Your task to perform on an android device: turn off picture-in-picture Image 0: 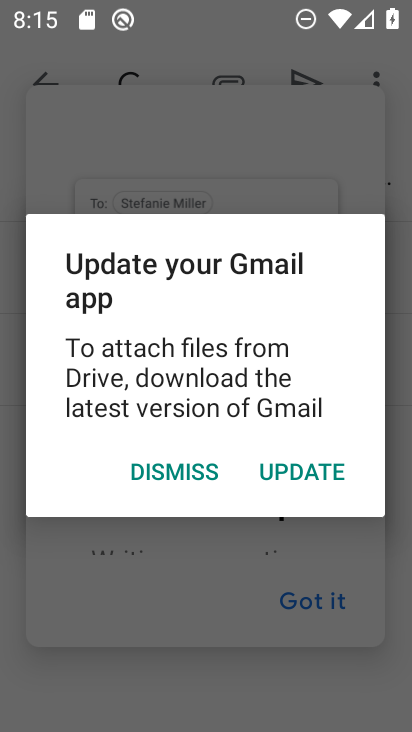
Step 0: press back button
Your task to perform on an android device: turn off picture-in-picture Image 1: 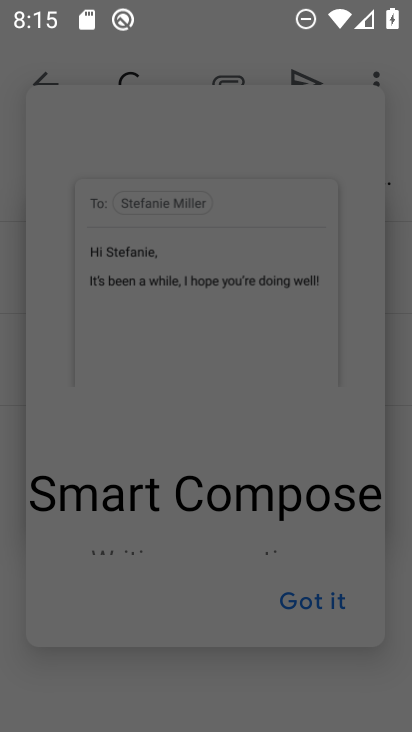
Step 1: press back button
Your task to perform on an android device: turn off picture-in-picture Image 2: 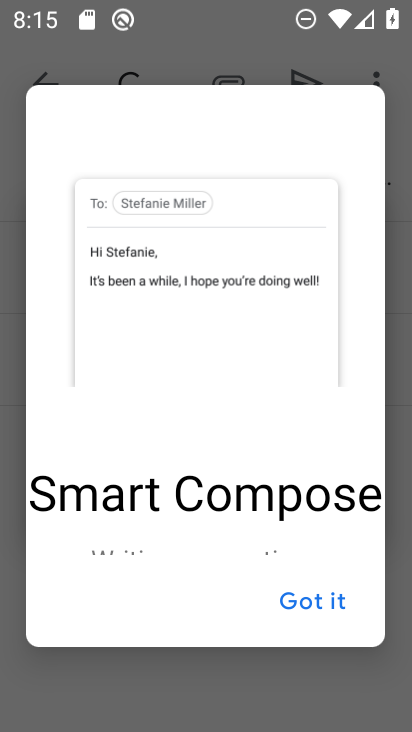
Step 2: press home button
Your task to perform on an android device: turn off picture-in-picture Image 3: 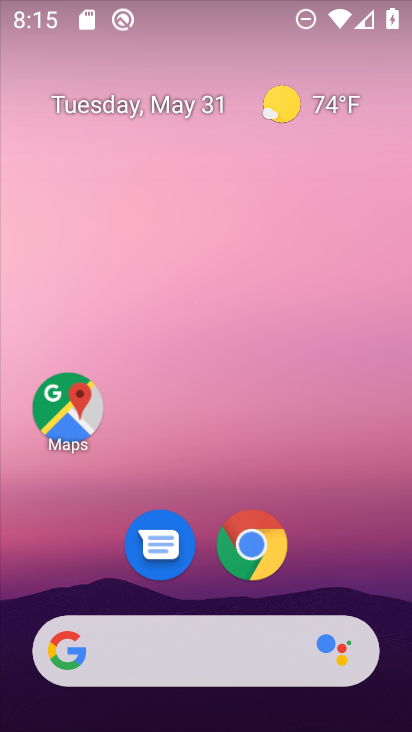
Step 3: drag from (350, 592) to (248, 0)
Your task to perform on an android device: turn off picture-in-picture Image 4: 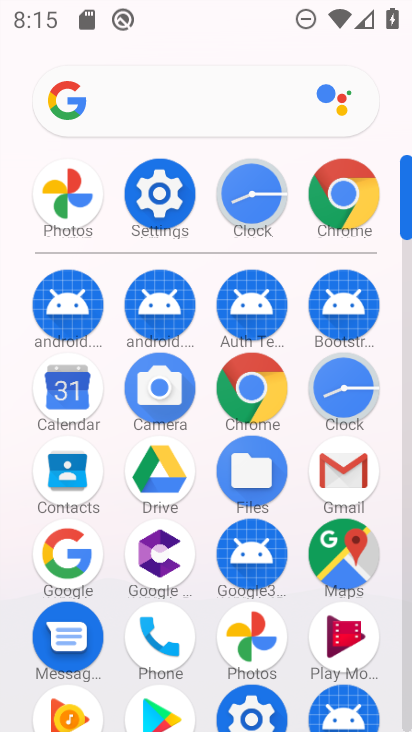
Step 4: drag from (13, 622) to (19, 266)
Your task to perform on an android device: turn off picture-in-picture Image 5: 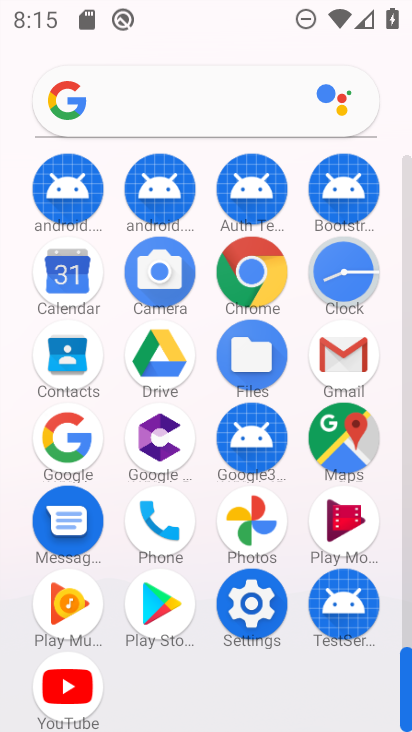
Step 5: click (253, 606)
Your task to perform on an android device: turn off picture-in-picture Image 6: 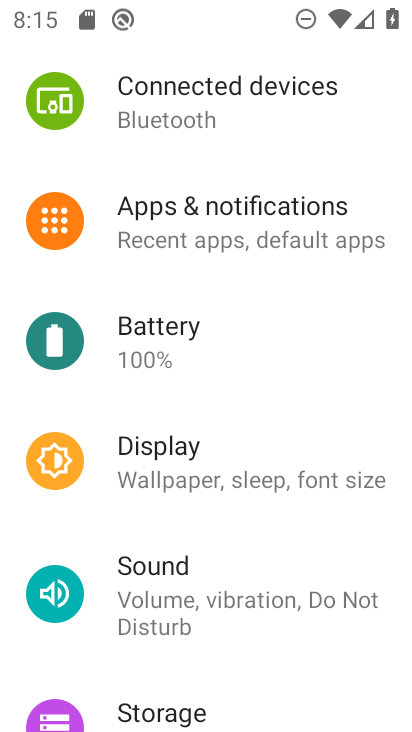
Step 6: drag from (287, 597) to (285, 173)
Your task to perform on an android device: turn off picture-in-picture Image 7: 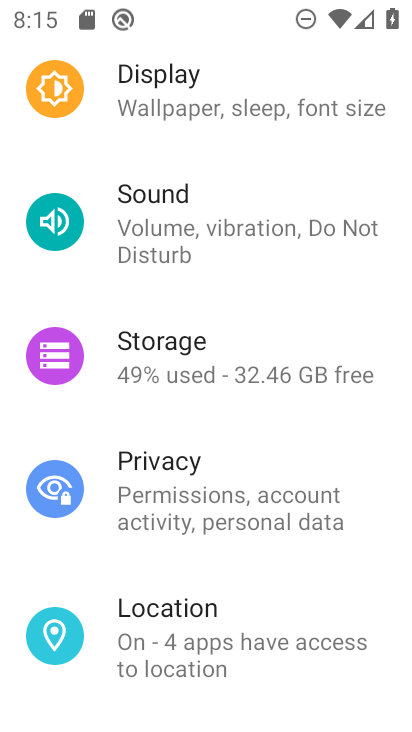
Step 7: drag from (245, 584) to (216, 90)
Your task to perform on an android device: turn off picture-in-picture Image 8: 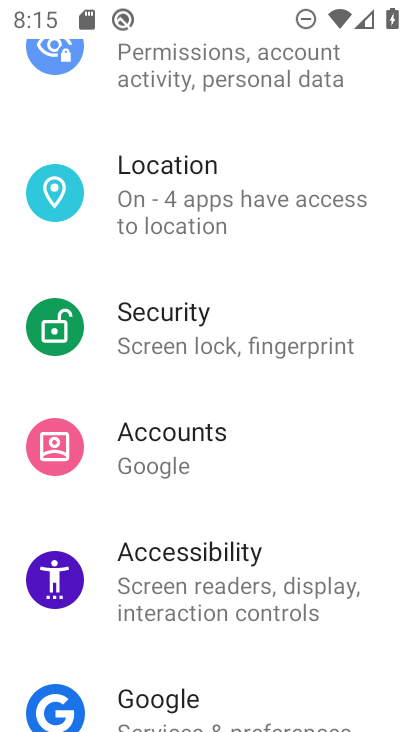
Step 8: drag from (278, 557) to (260, 163)
Your task to perform on an android device: turn off picture-in-picture Image 9: 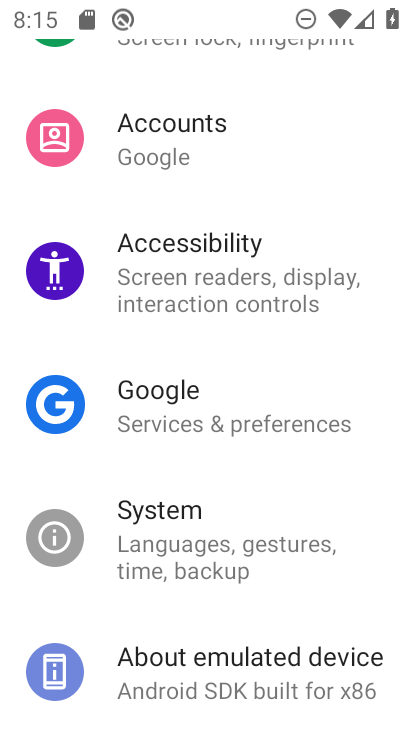
Step 9: drag from (288, 621) to (266, 224)
Your task to perform on an android device: turn off picture-in-picture Image 10: 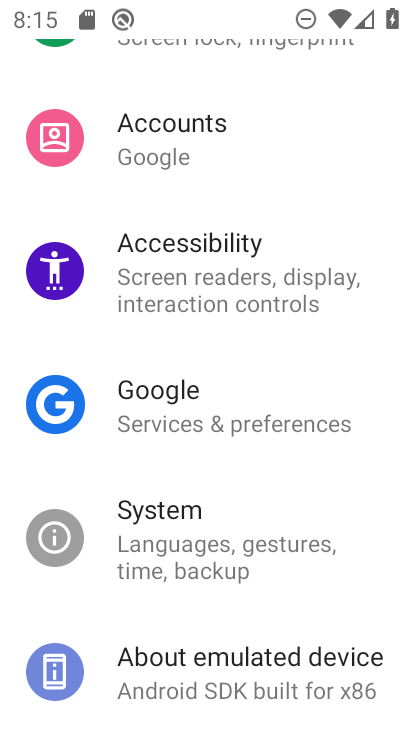
Step 10: drag from (235, 188) to (248, 642)
Your task to perform on an android device: turn off picture-in-picture Image 11: 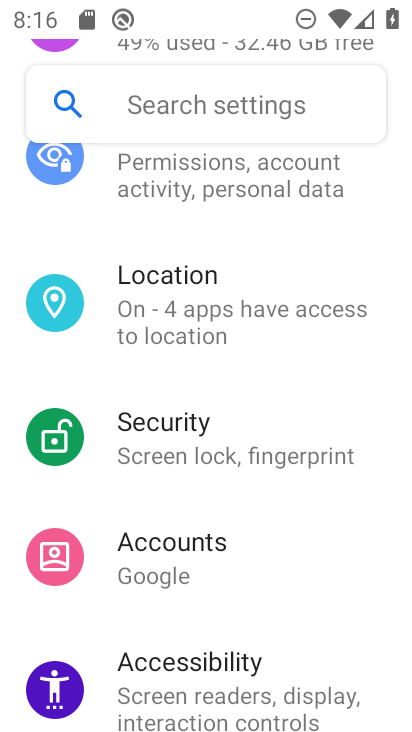
Step 11: drag from (239, 243) to (283, 661)
Your task to perform on an android device: turn off picture-in-picture Image 12: 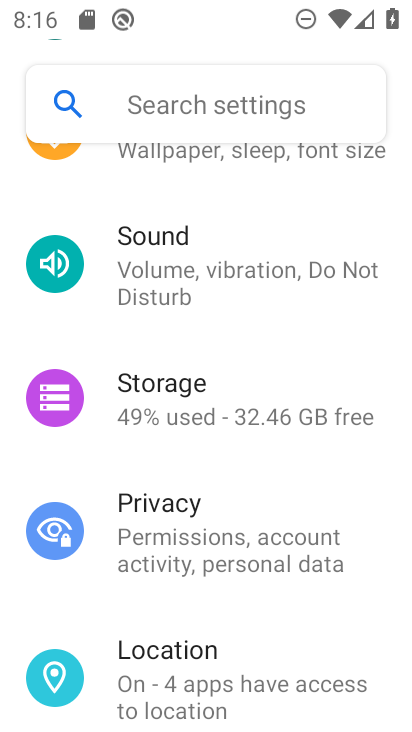
Step 12: drag from (273, 280) to (267, 692)
Your task to perform on an android device: turn off picture-in-picture Image 13: 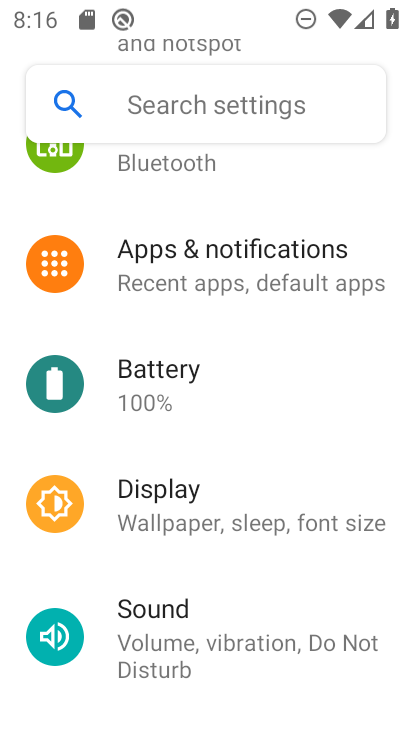
Step 13: click (207, 263)
Your task to perform on an android device: turn off picture-in-picture Image 14: 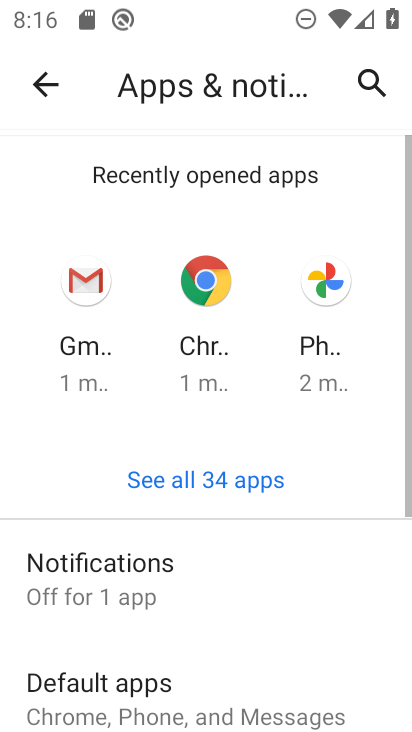
Step 14: drag from (246, 614) to (231, 182)
Your task to perform on an android device: turn off picture-in-picture Image 15: 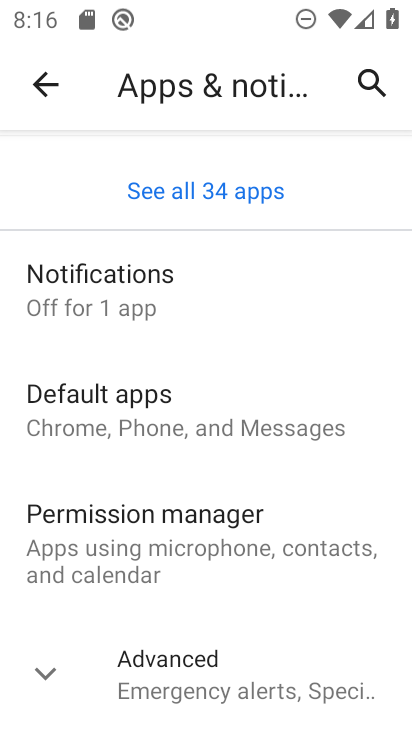
Step 15: drag from (259, 637) to (254, 306)
Your task to perform on an android device: turn off picture-in-picture Image 16: 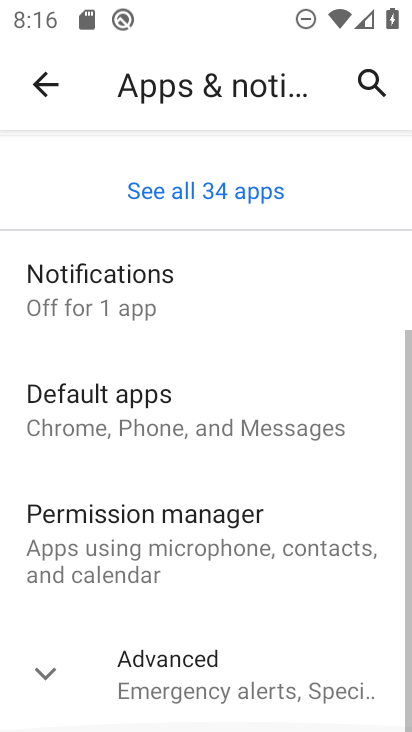
Step 16: click (46, 678)
Your task to perform on an android device: turn off picture-in-picture Image 17: 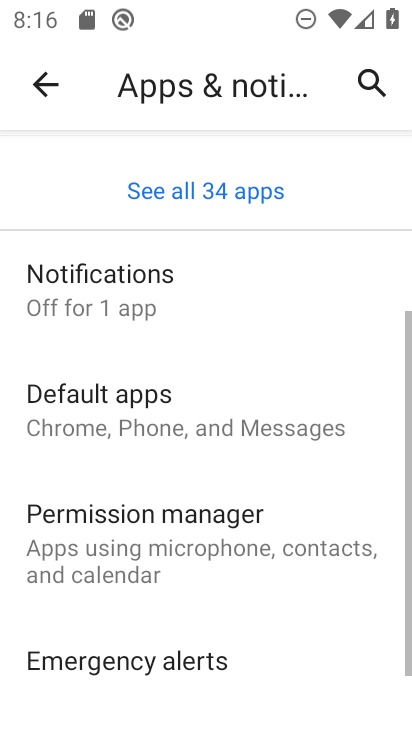
Step 17: drag from (272, 609) to (287, 140)
Your task to perform on an android device: turn off picture-in-picture Image 18: 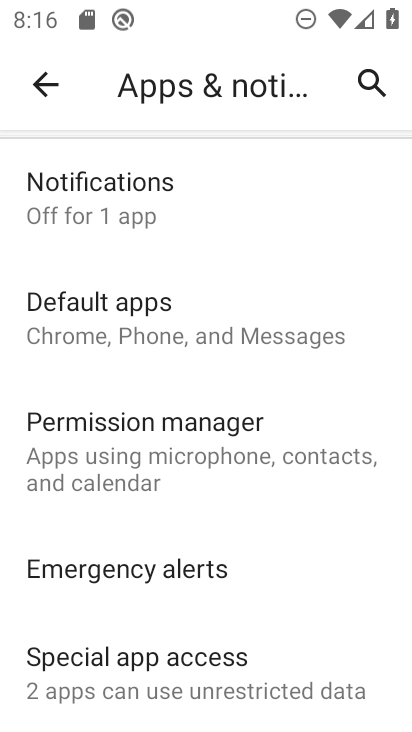
Step 18: drag from (267, 577) to (267, 349)
Your task to perform on an android device: turn off picture-in-picture Image 19: 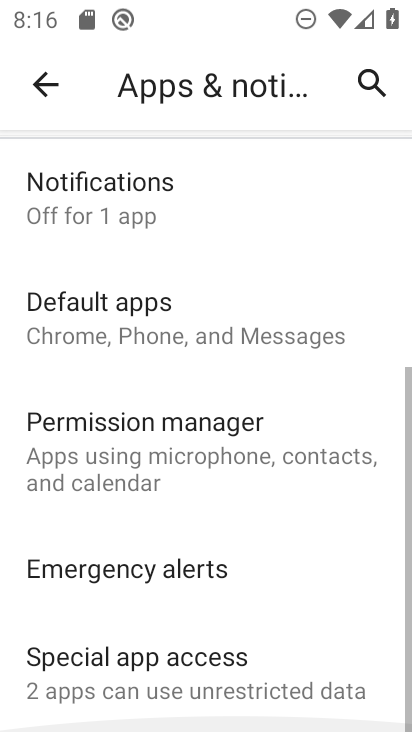
Step 19: click (119, 661)
Your task to perform on an android device: turn off picture-in-picture Image 20: 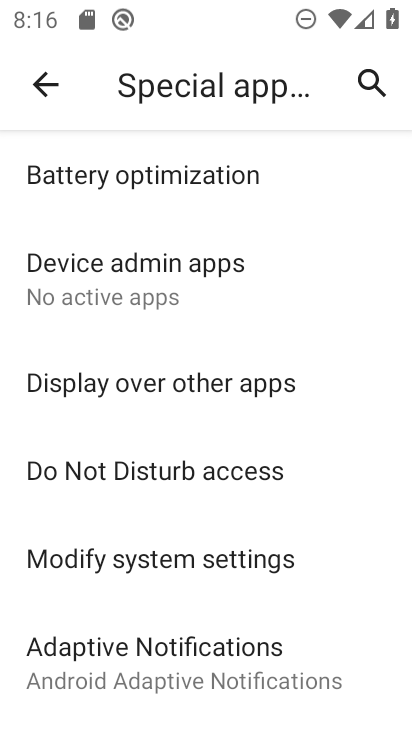
Step 20: drag from (263, 613) to (262, 223)
Your task to perform on an android device: turn off picture-in-picture Image 21: 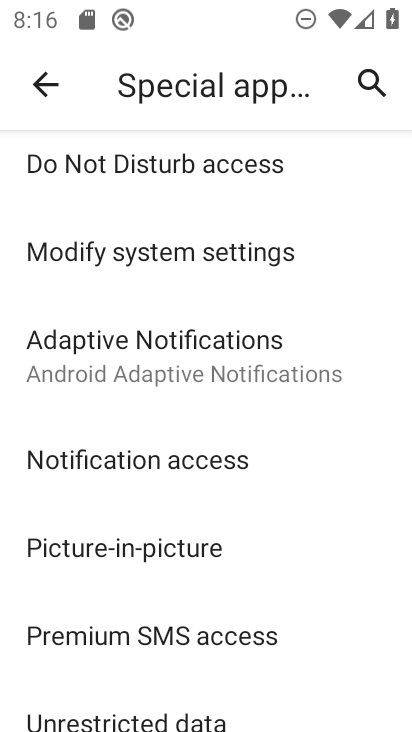
Step 21: click (195, 540)
Your task to perform on an android device: turn off picture-in-picture Image 22: 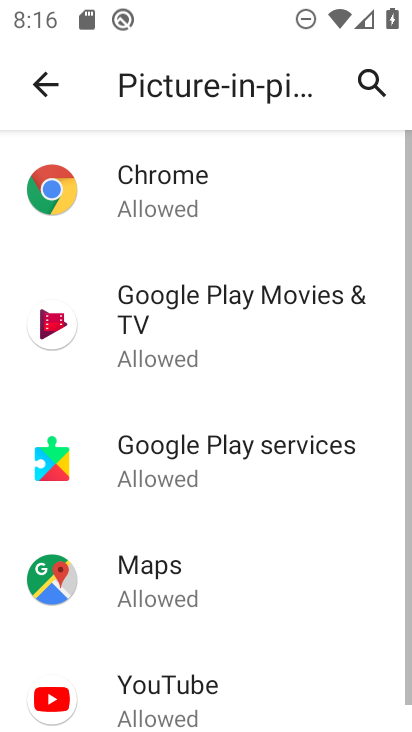
Step 22: click (231, 193)
Your task to perform on an android device: turn off picture-in-picture Image 23: 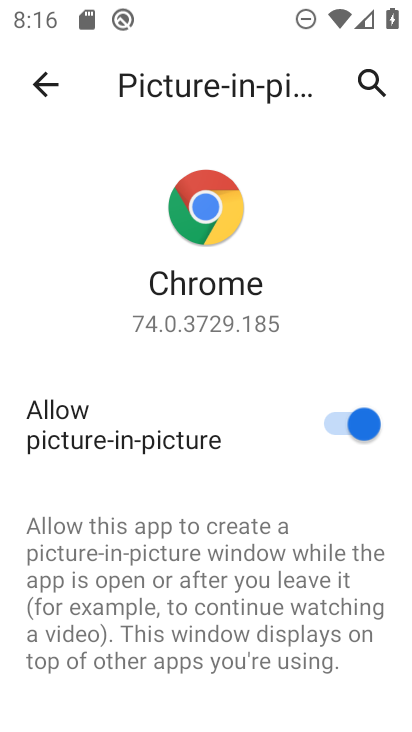
Step 23: click (330, 426)
Your task to perform on an android device: turn off picture-in-picture Image 24: 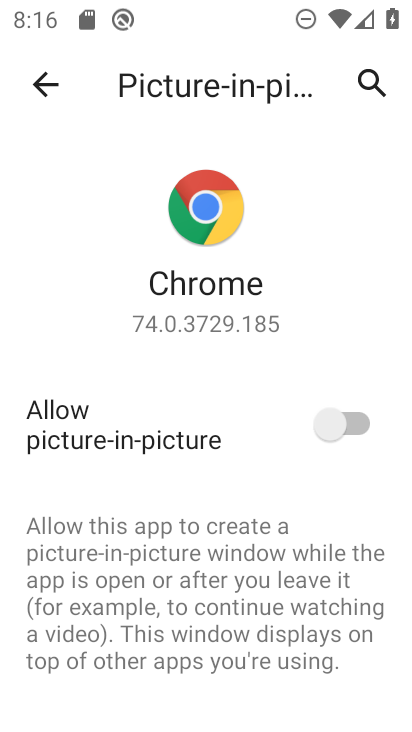
Step 24: click (36, 81)
Your task to perform on an android device: turn off picture-in-picture Image 25: 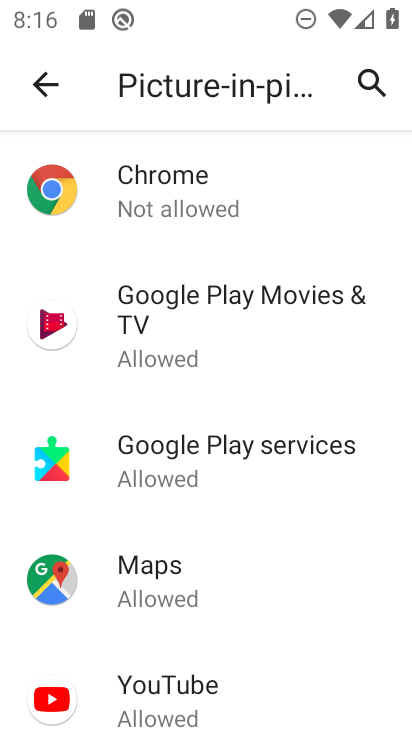
Step 25: click (170, 346)
Your task to perform on an android device: turn off picture-in-picture Image 26: 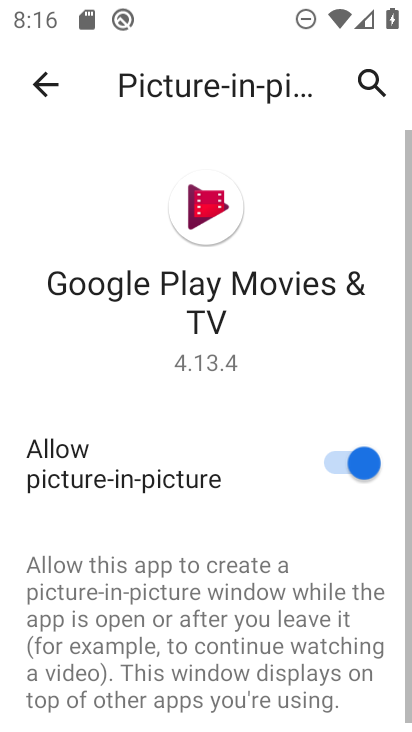
Step 26: click (353, 447)
Your task to perform on an android device: turn off picture-in-picture Image 27: 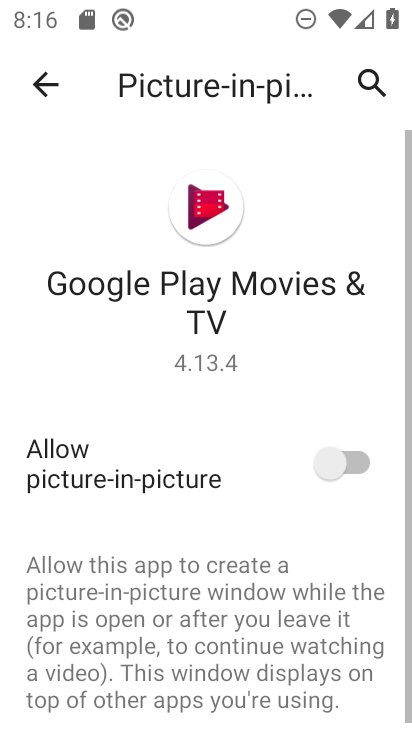
Step 27: click (47, 82)
Your task to perform on an android device: turn off picture-in-picture Image 28: 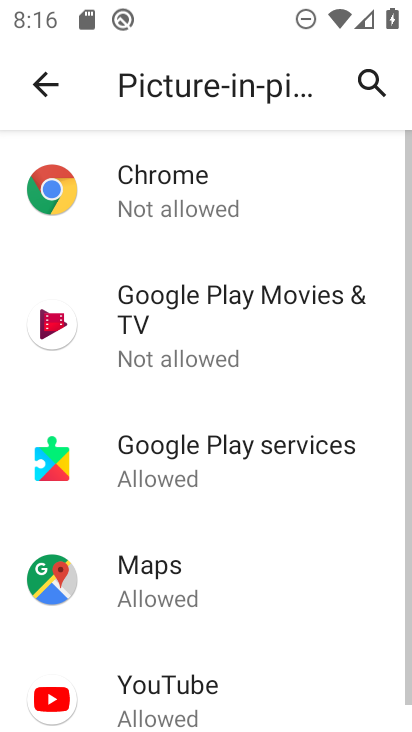
Step 28: click (187, 456)
Your task to perform on an android device: turn off picture-in-picture Image 29: 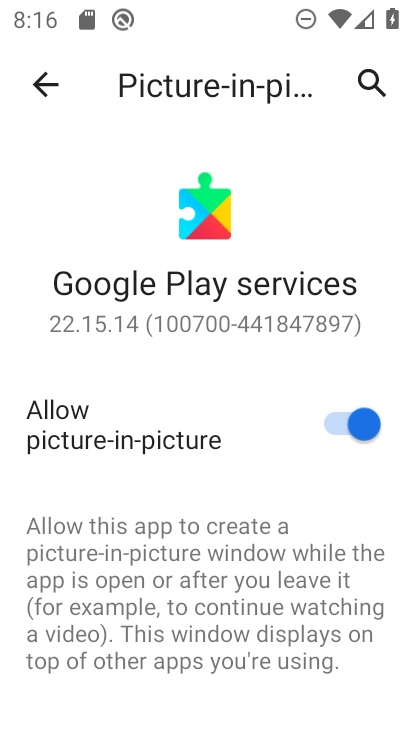
Step 29: click (337, 430)
Your task to perform on an android device: turn off picture-in-picture Image 30: 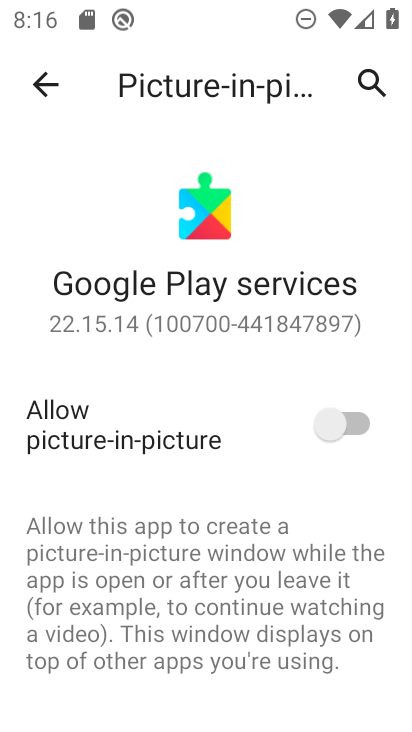
Step 30: click (32, 77)
Your task to perform on an android device: turn off picture-in-picture Image 31: 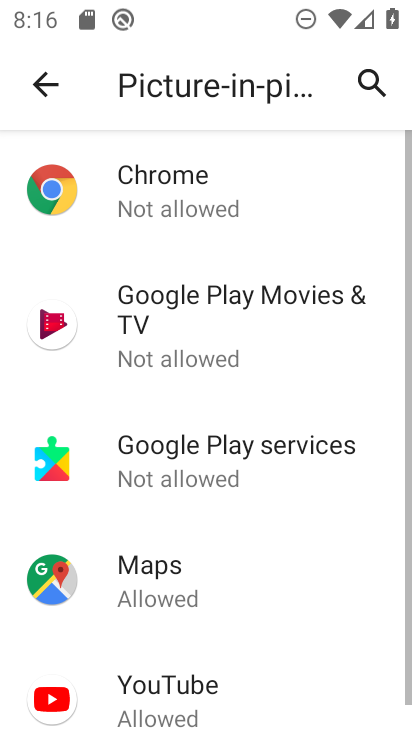
Step 31: click (183, 558)
Your task to perform on an android device: turn off picture-in-picture Image 32: 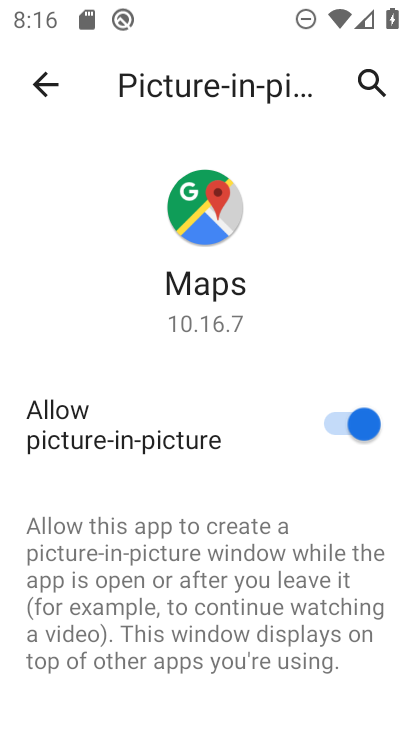
Step 32: click (351, 432)
Your task to perform on an android device: turn off picture-in-picture Image 33: 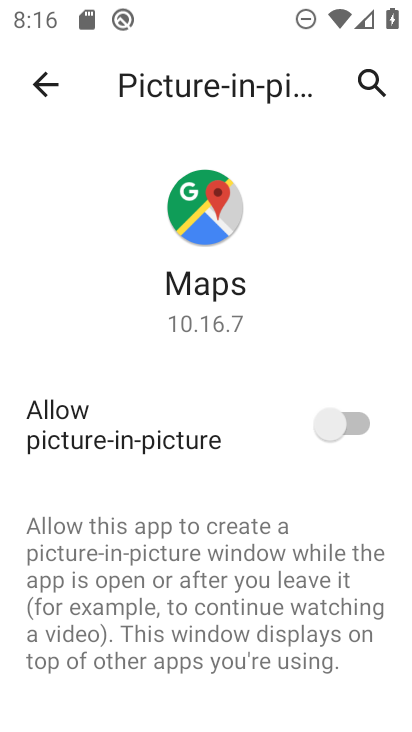
Step 33: click (43, 74)
Your task to perform on an android device: turn off picture-in-picture Image 34: 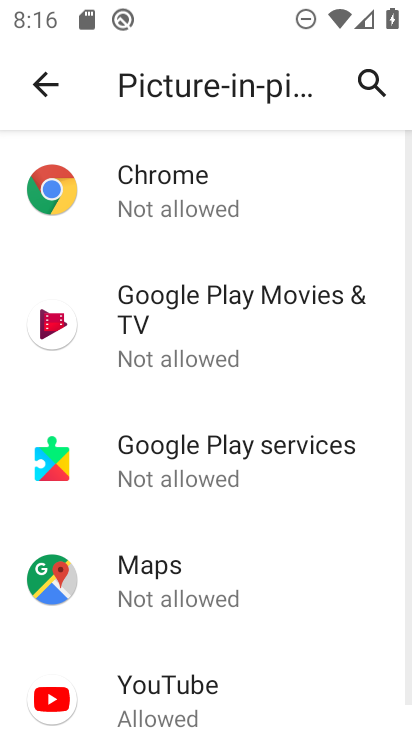
Step 34: click (215, 711)
Your task to perform on an android device: turn off picture-in-picture Image 35: 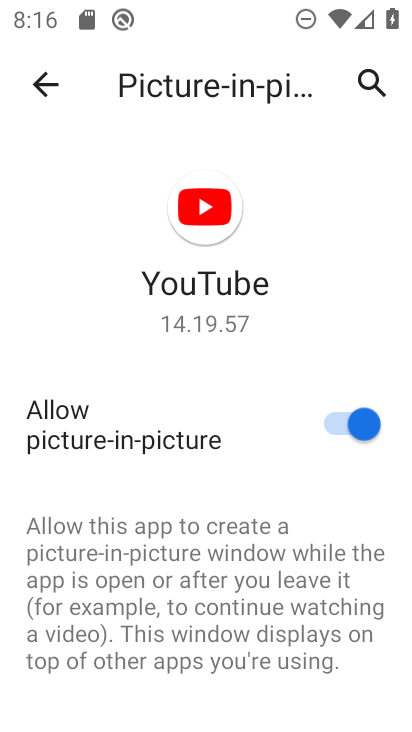
Step 35: click (347, 430)
Your task to perform on an android device: turn off picture-in-picture Image 36: 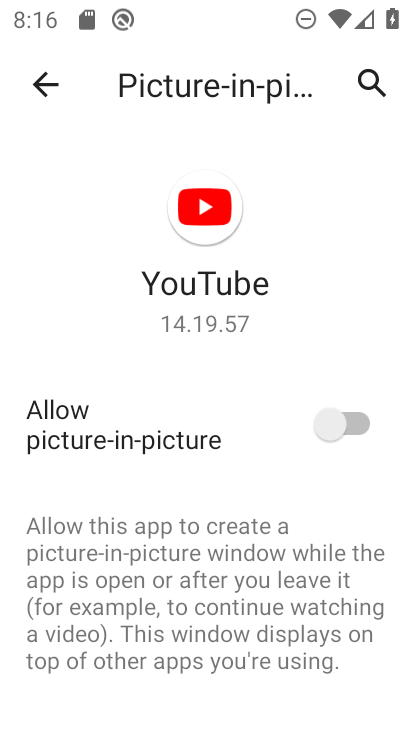
Step 36: click (36, 70)
Your task to perform on an android device: turn off picture-in-picture Image 37: 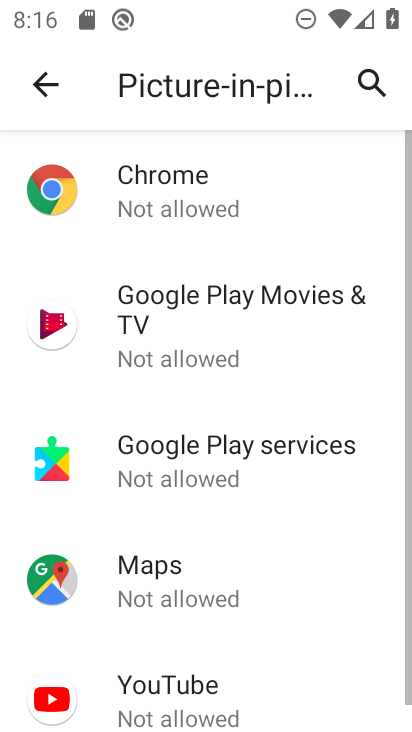
Step 37: task complete